Your task to perform on an android device: Search for Italian restaurants on Maps Image 0: 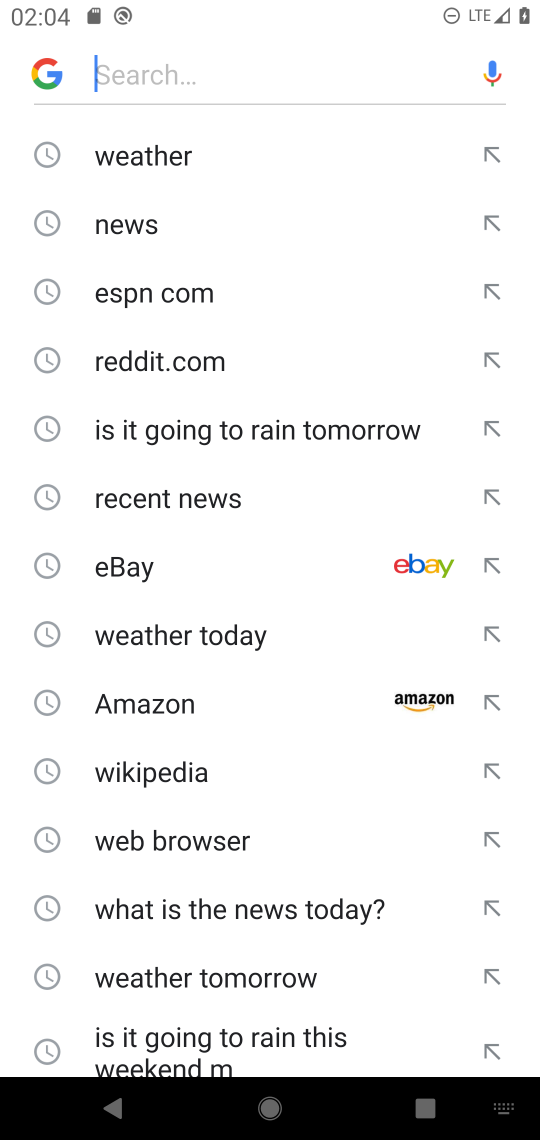
Step 0: press home button
Your task to perform on an android device: Search for Italian restaurants on Maps Image 1: 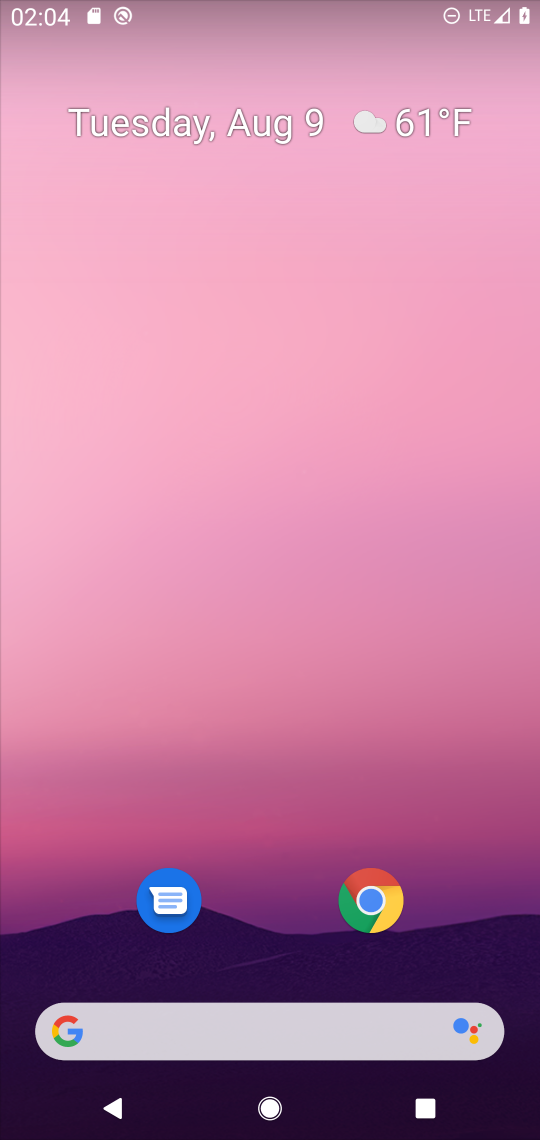
Step 1: drag from (269, 917) to (309, 122)
Your task to perform on an android device: Search for Italian restaurants on Maps Image 2: 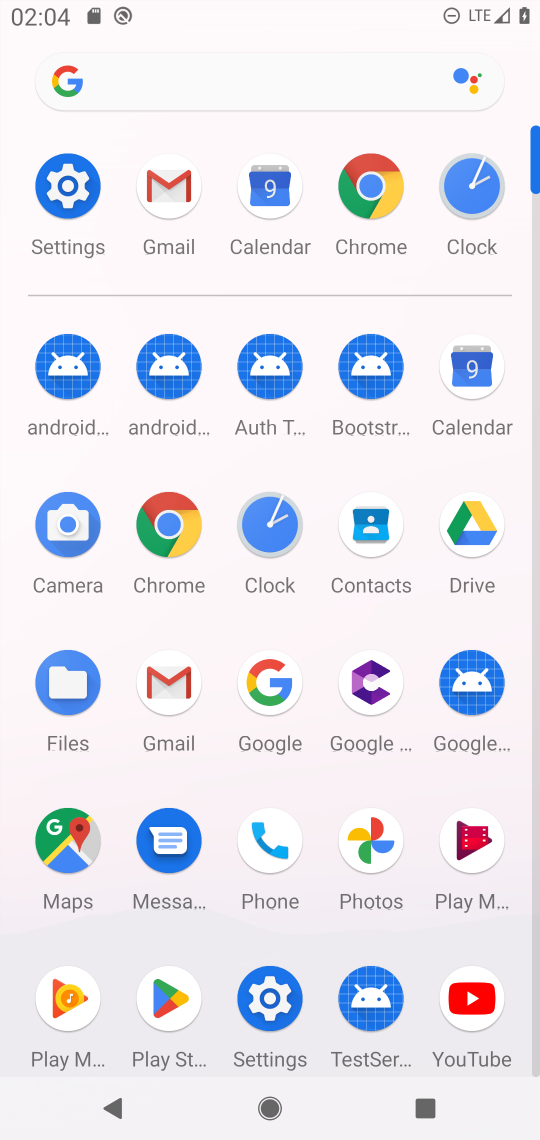
Step 2: click (57, 839)
Your task to perform on an android device: Search for Italian restaurants on Maps Image 3: 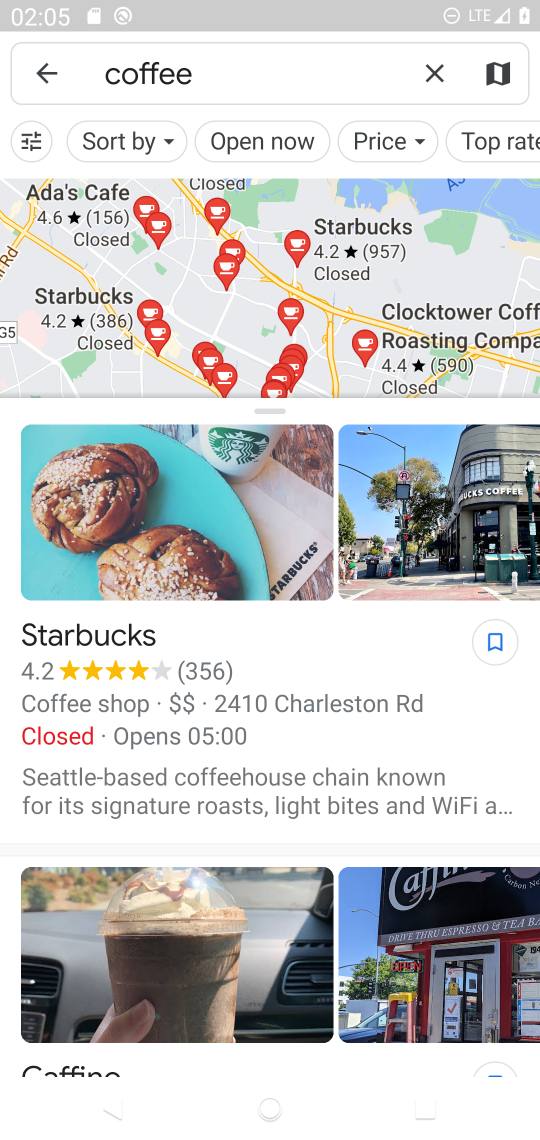
Step 3: click (437, 72)
Your task to perform on an android device: Search for Italian restaurants on Maps Image 4: 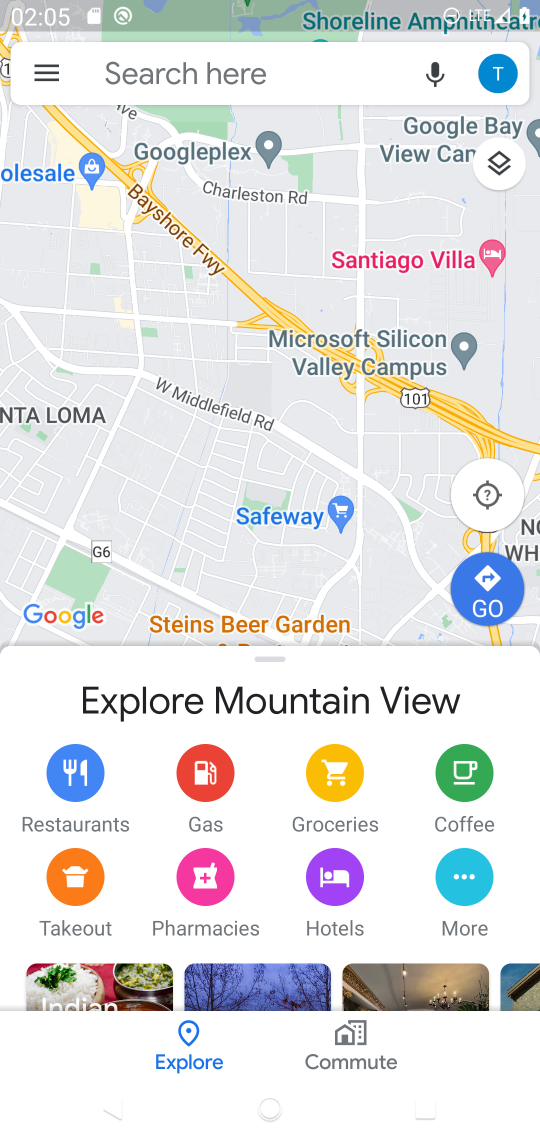
Step 4: click (328, 82)
Your task to perform on an android device: Search for Italian restaurants on Maps Image 5: 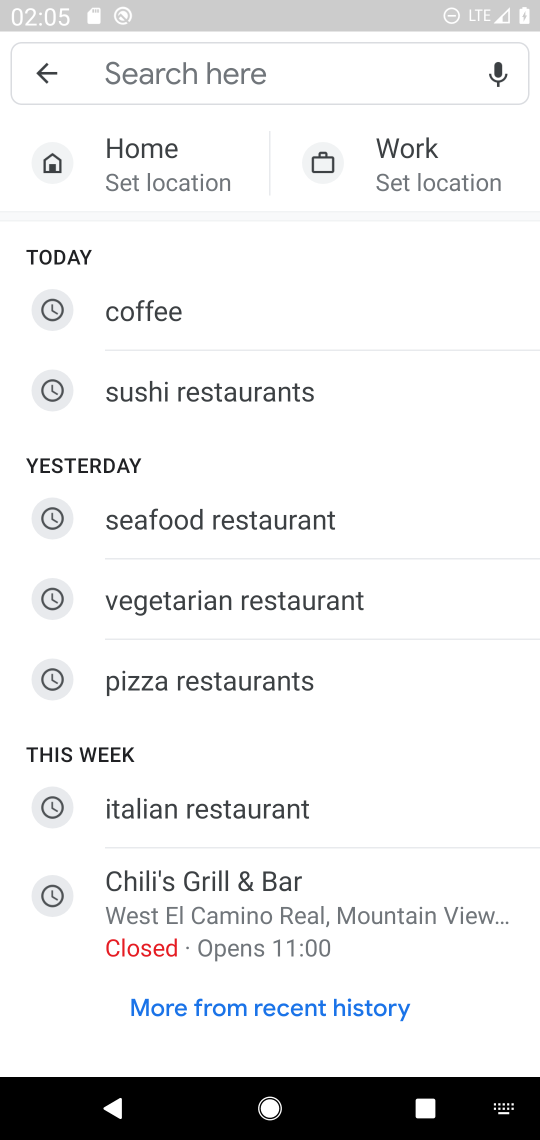
Step 5: type "italian restaurants"
Your task to perform on an android device: Search for Italian restaurants on Maps Image 6: 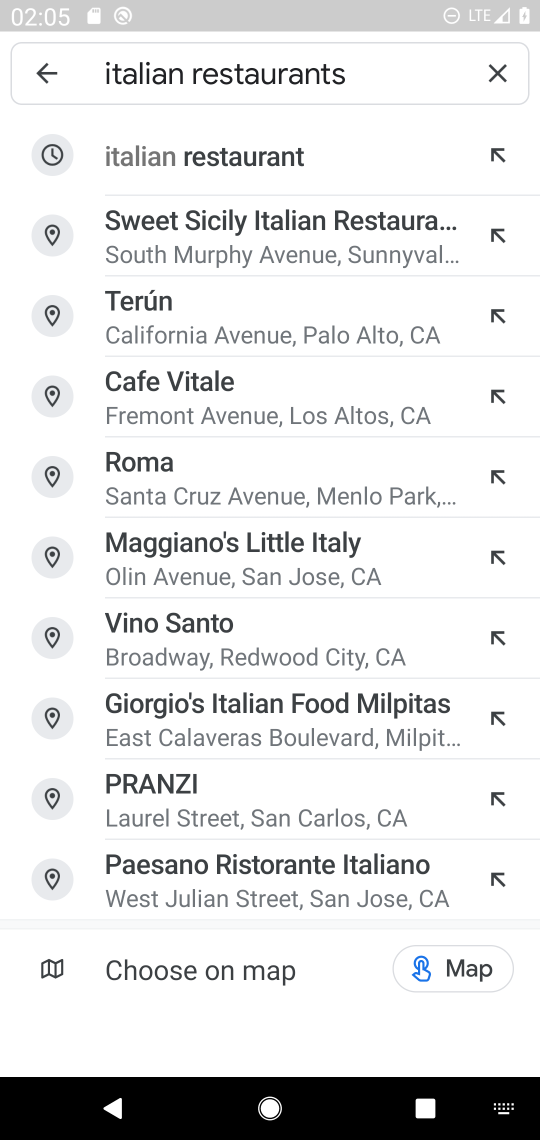
Step 6: click (321, 153)
Your task to perform on an android device: Search for Italian restaurants on Maps Image 7: 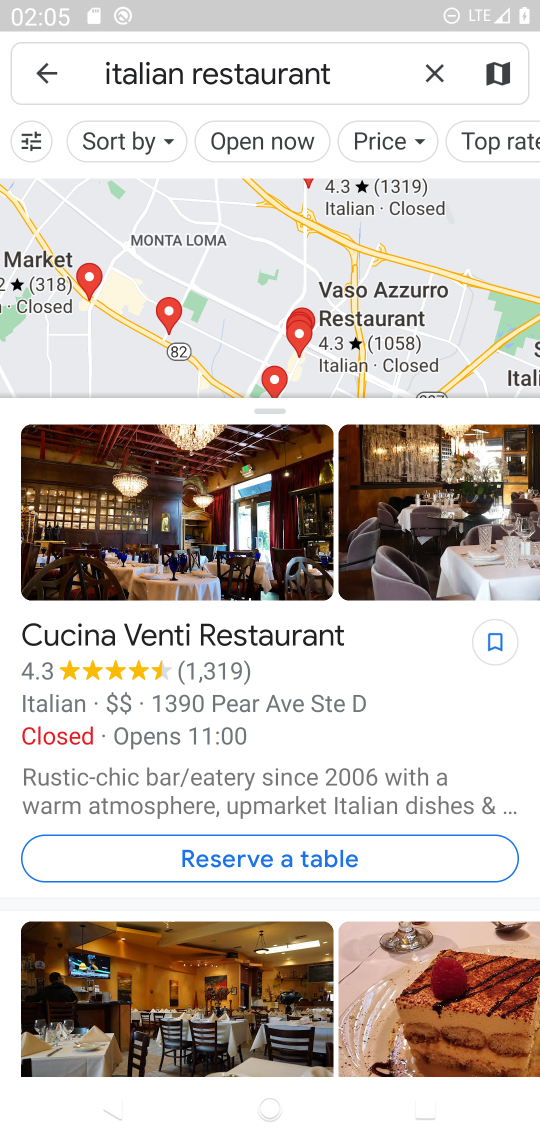
Step 7: task complete